Your task to perform on an android device: install app "Google Drive" Image 0: 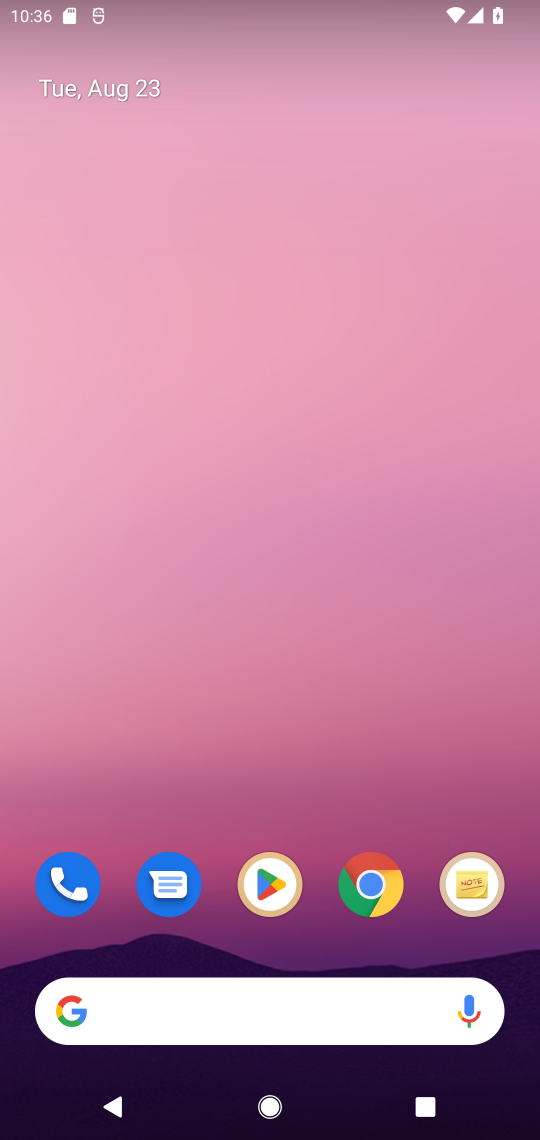
Step 0: click (269, 883)
Your task to perform on an android device: install app "Google Drive" Image 1: 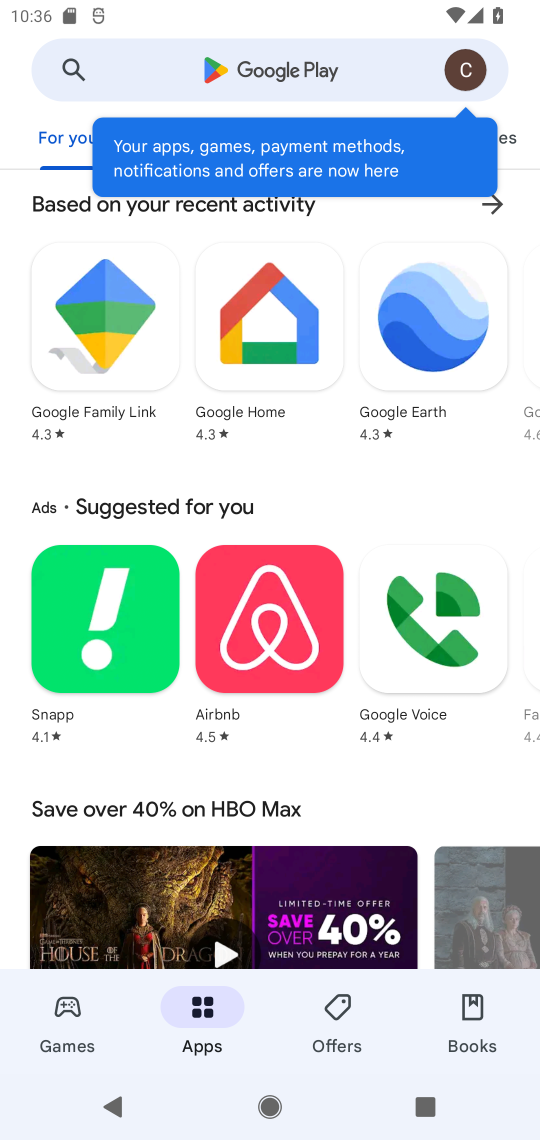
Step 1: click (65, 67)
Your task to perform on an android device: install app "Google Drive" Image 2: 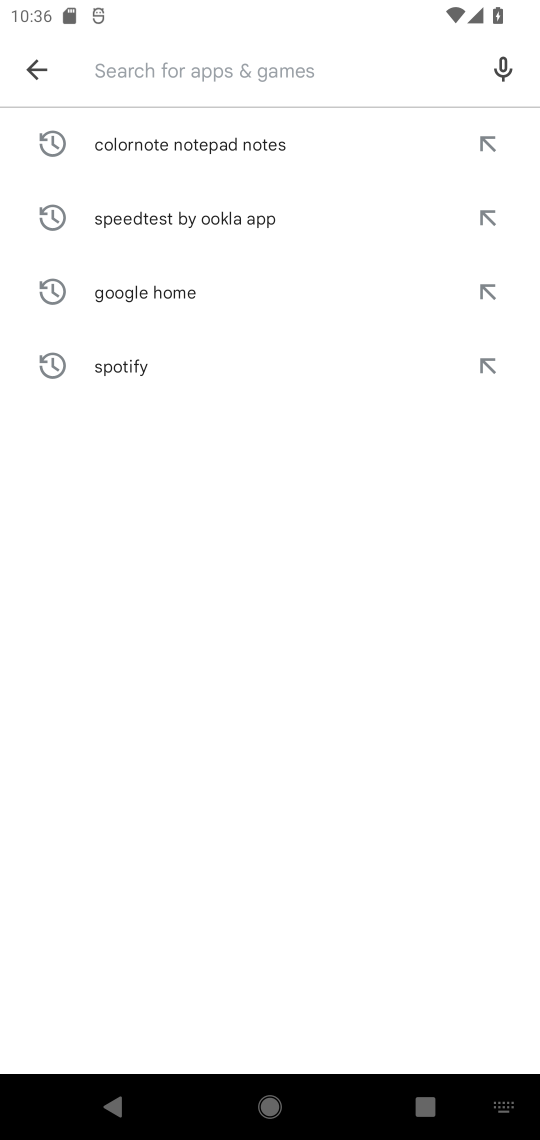
Step 2: type "Google Drive"
Your task to perform on an android device: install app "Google Drive" Image 3: 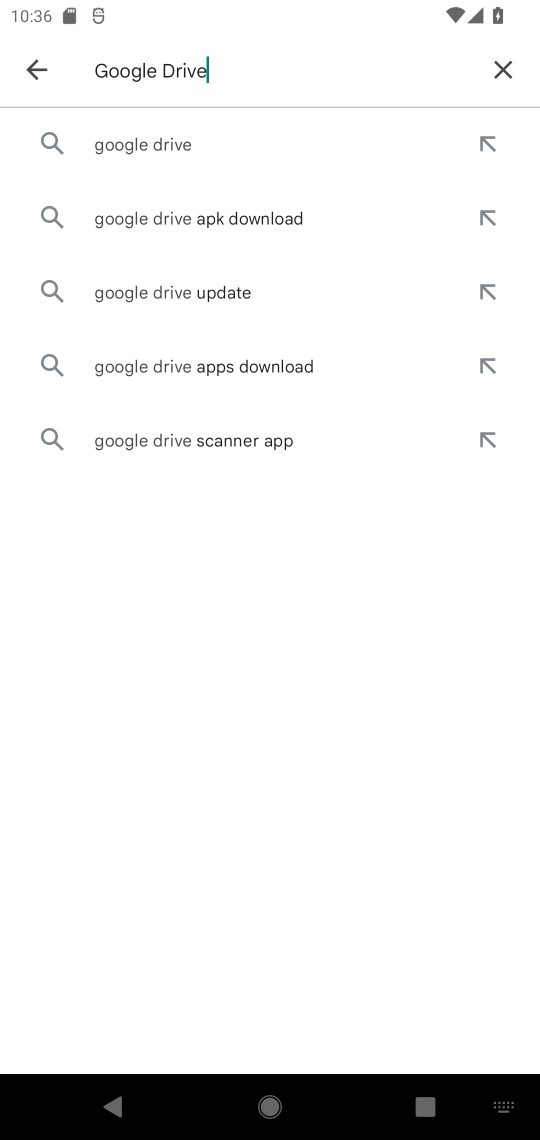
Step 3: click (130, 133)
Your task to perform on an android device: install app "Google Drive" Image 4: 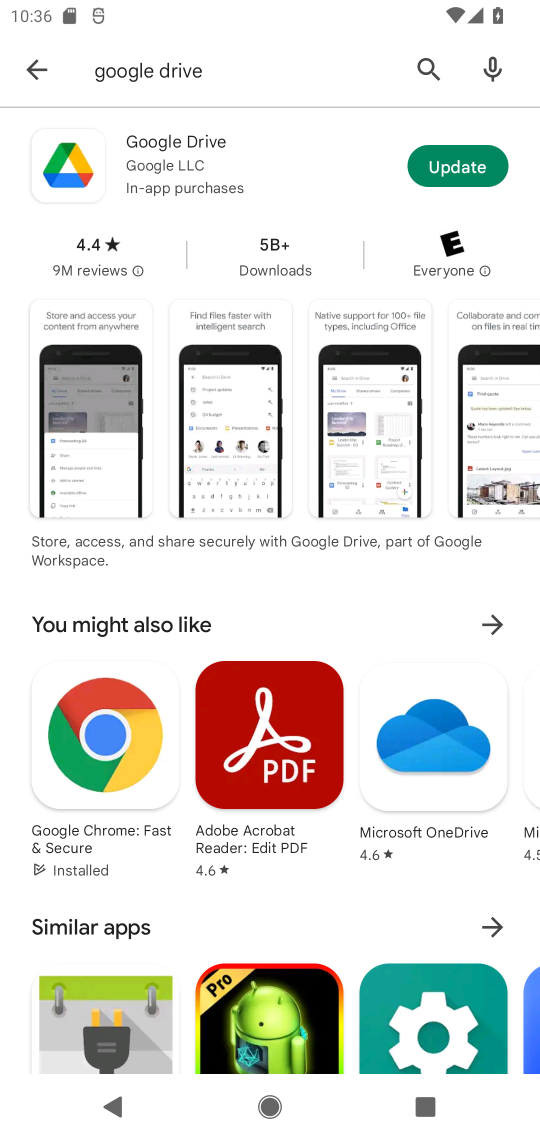
Step 4: task complete